Your task to perform on an android device: Clear the shopping cart on newegg.com. Search for "panasonic triple a" on newegg.com, select the first entry, and add it to the cart. Image 0: 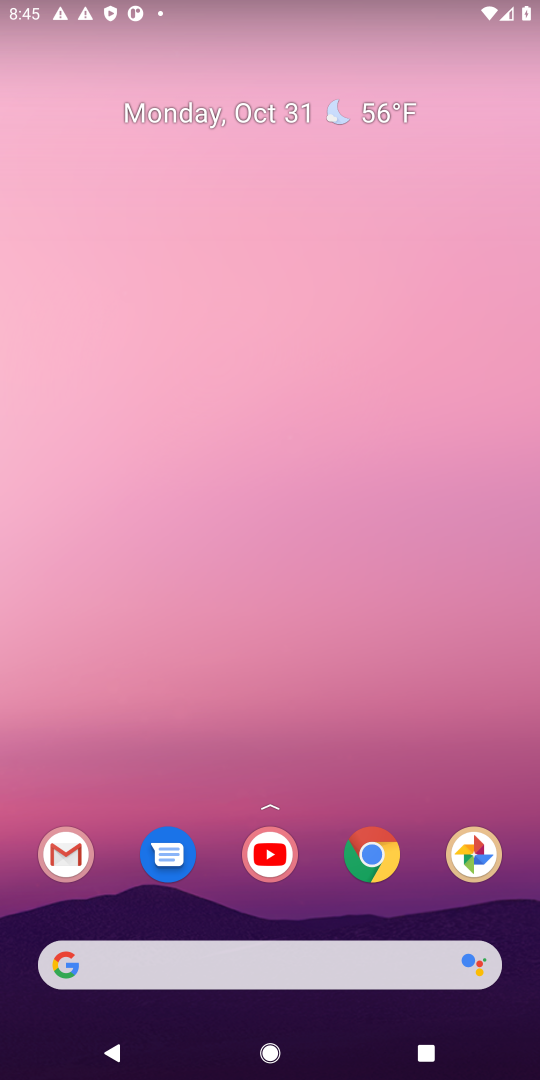
Step 0: click (284, 953)
Your task to perform on an android device: Clear the shopping cart on newegg.com. Search for "panasonic triple a" on newegg.com, select the first entry, and add it to the cart. Image 1: 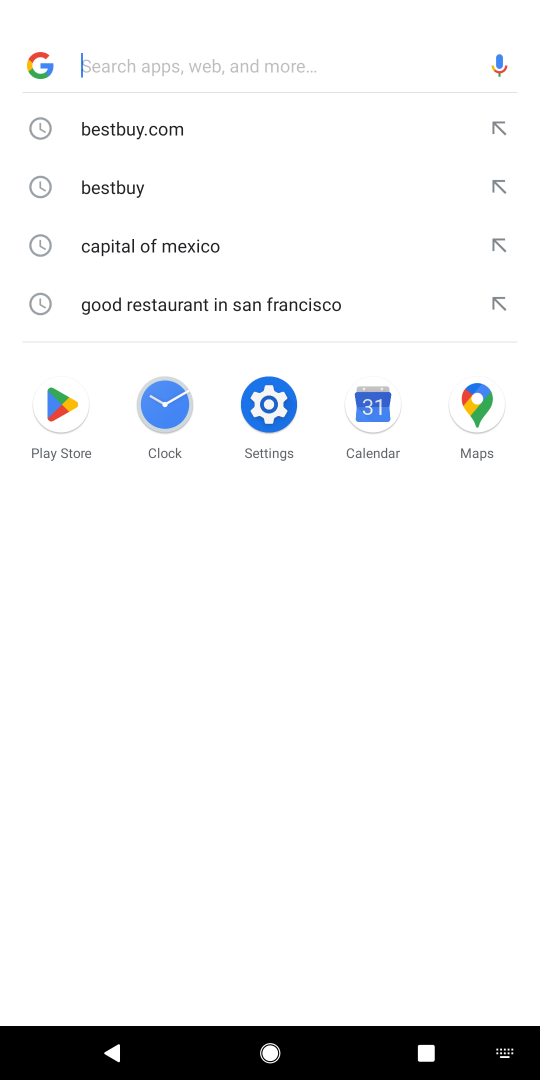
Step 1: click (141, 97)
Your task to perform on an android device: Clear the shopping cart on newegg.com. Search for "panasonic triple a" on newegg.com, select the first entry, and add it to the cart. Image 2: 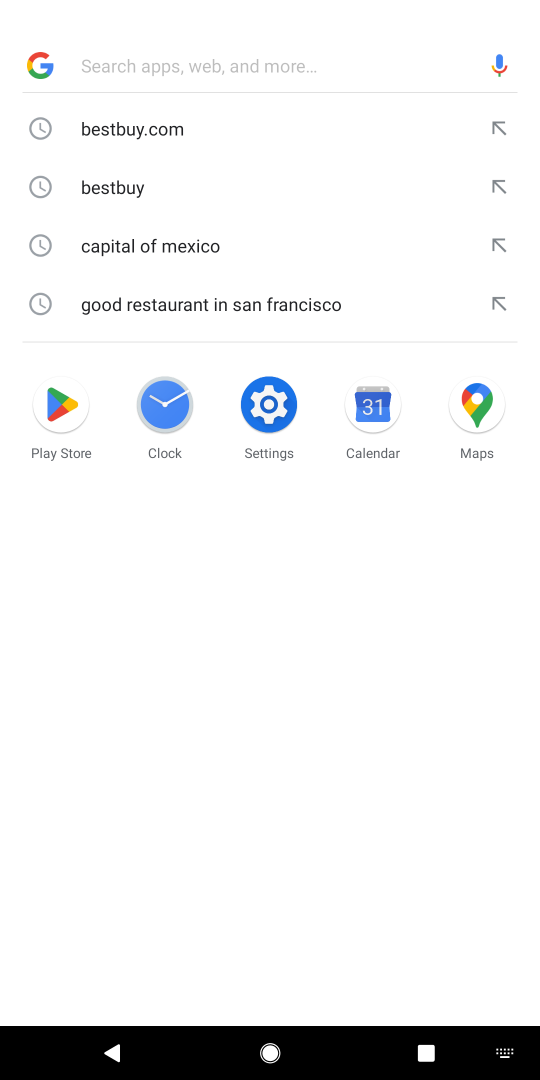
Step 2: type "newegg"
Your task to perform on an android device: Clear the shopping cart on newegg.com. Search for "panasonic triple a" on newegg.com, select the first entry, and add it to the cart. Image 3: 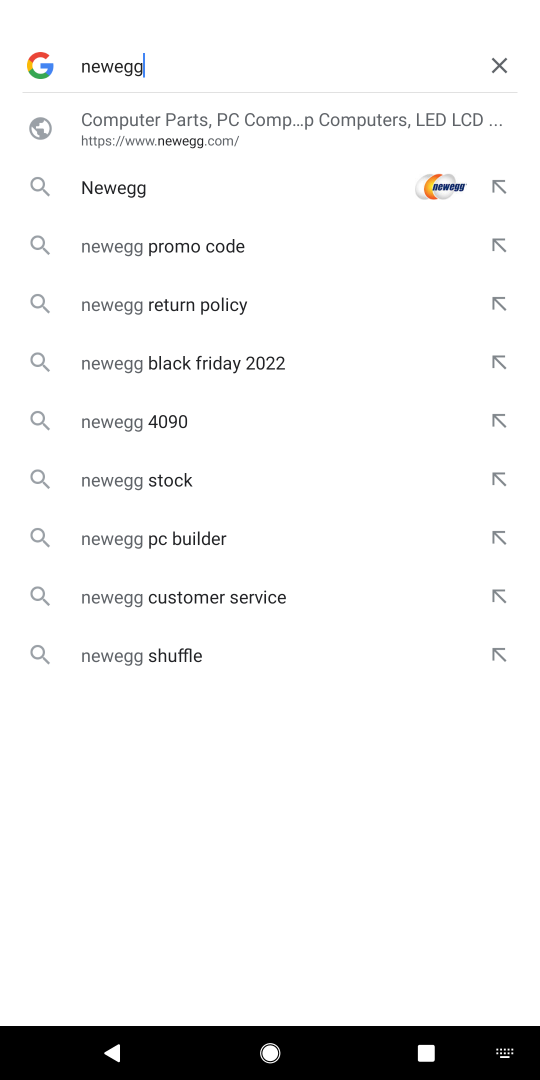
Step 3: click (226, 204)
Your task to perform on an android device: Clear the shopping cart on newegg.com. Search for "panasonic triple a" on newegg.com, select the first entry, and add it to the cart. Image 4: 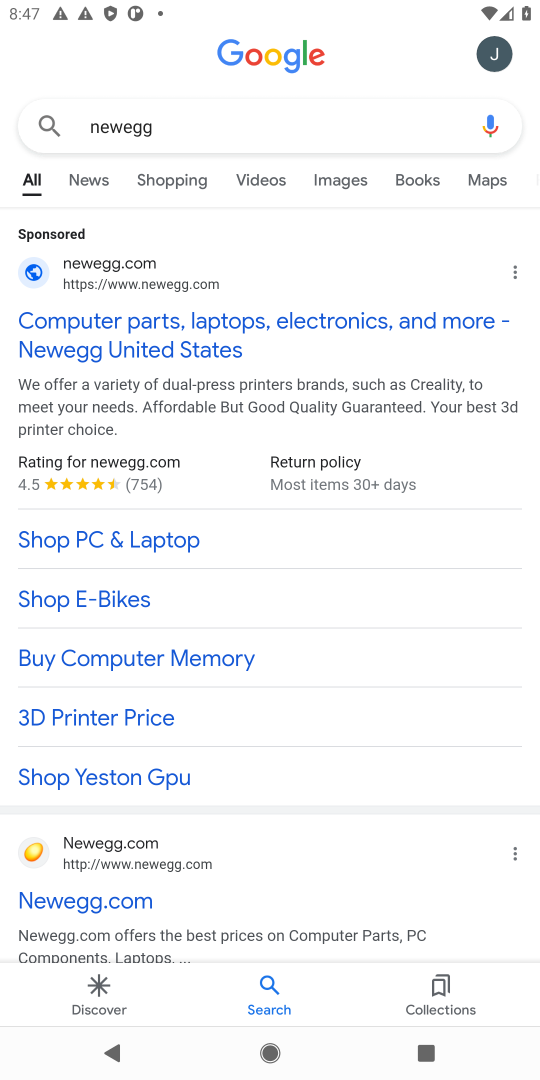
Step 4: click (234, 321)
Your task to perform on an android device: Clear the shopping cart on newegg.com. Search for "panasonic triple a" on newegg.com, select the first entry, and add it to the cart. Image 5: 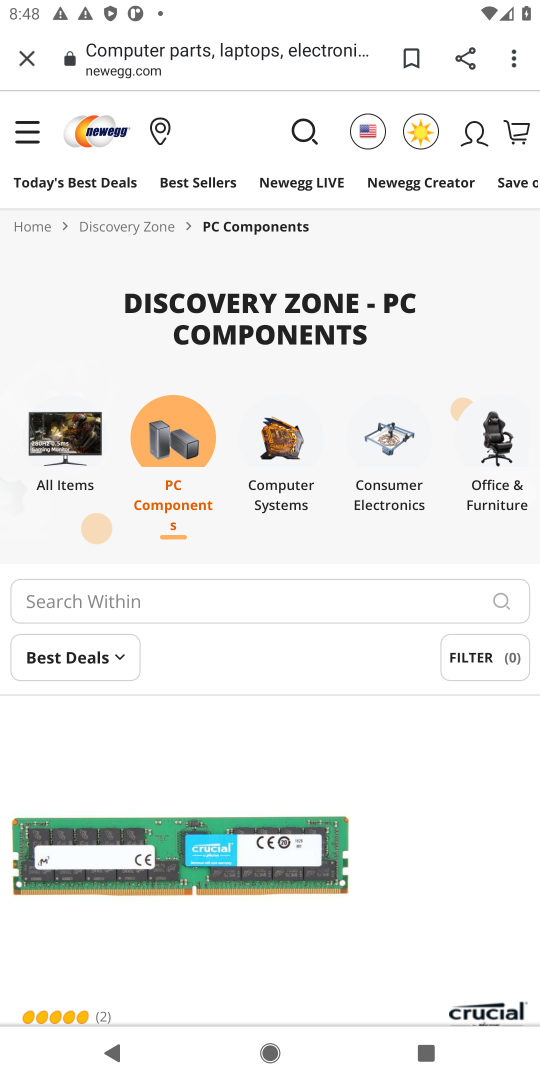
Step 5: click (142, 592)
Your task to perform on an android device: Clear the shopping cart on newegg.com. Search for "panasonic triple a" on newegg.com, select the first entry, and add it to the cart. Image 6: 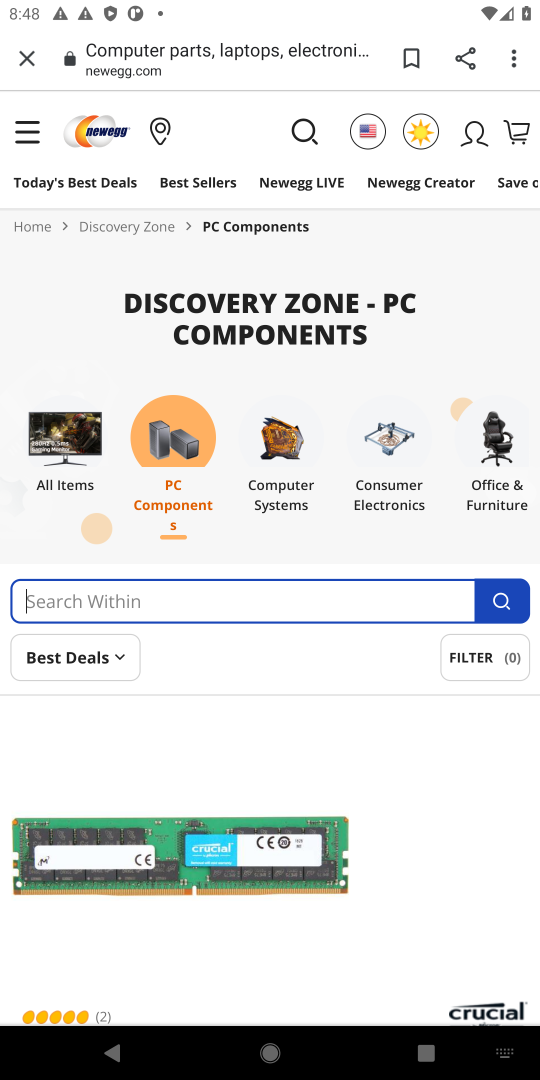
Step 6: type "panasoic triple"
Your task to perform on an android device: Clear the shopping cart on newegg.com. Search for "panasonic triple a" on newegg.com, select the first entry, and add it to the cart. Image 7: 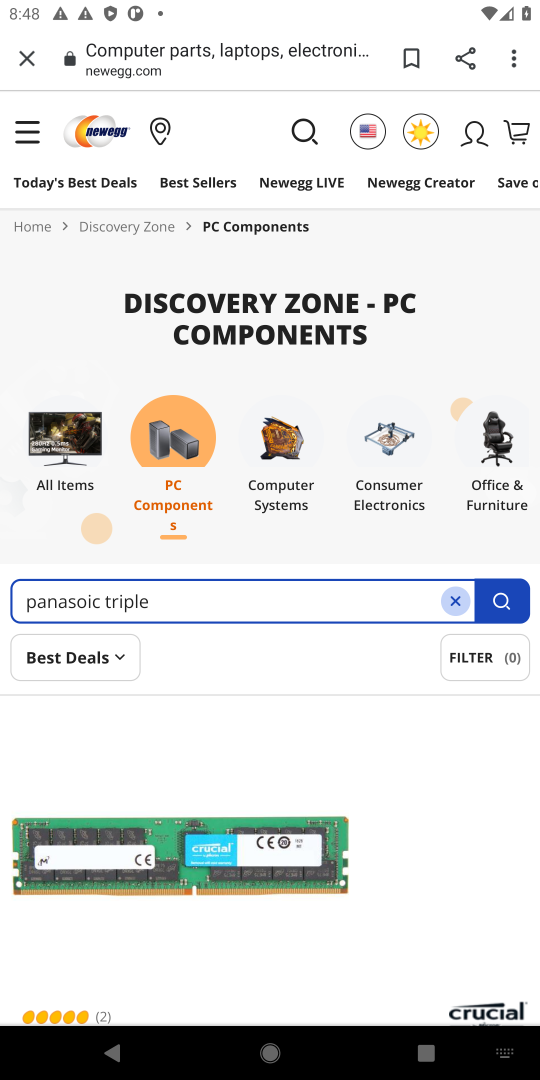
Step 7: click (513, 589)
Your task to perform on an android device: Clear the shopping cart on newegg.com. Search for "panasonic triple a" on newegg.com, select the first entry, and add it to the cart. Image 8: 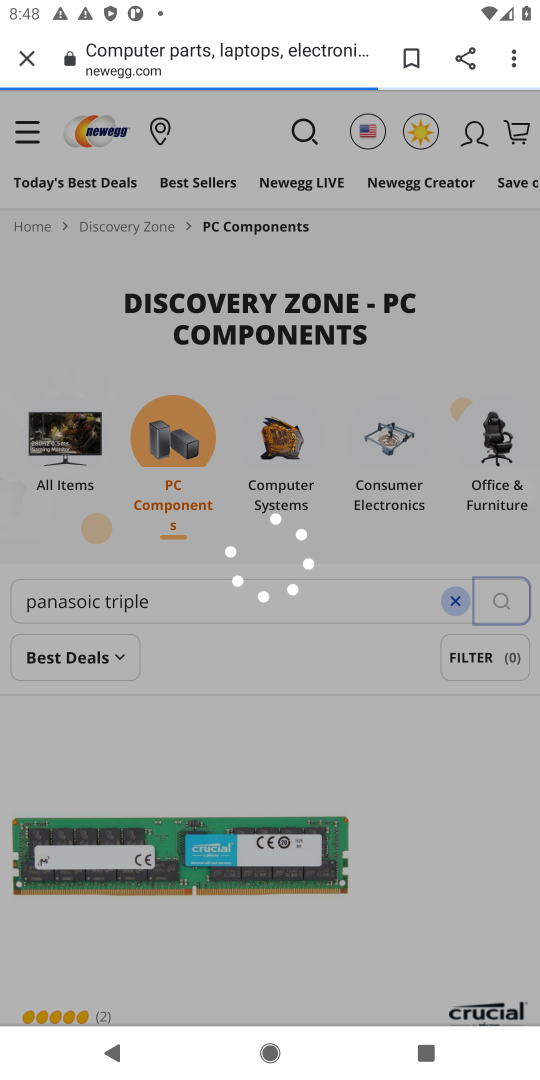
Step 8: task complete